Your task to perform on an android device: check out phone information Image 0: 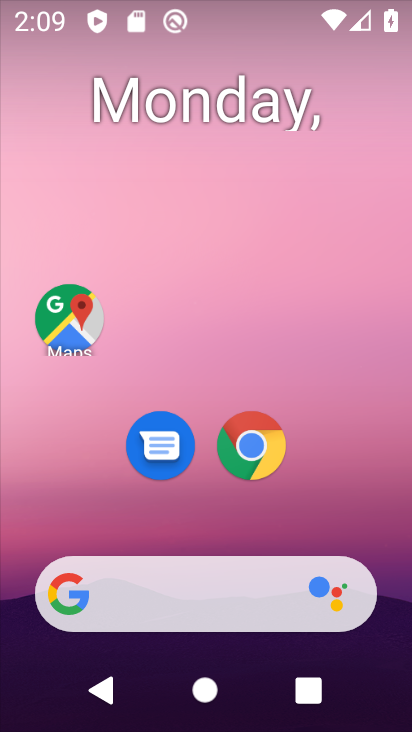
Step 0: drag from (347, 498) to (270, 19)
Your task to perform on an android device: check out phone information Image 1: 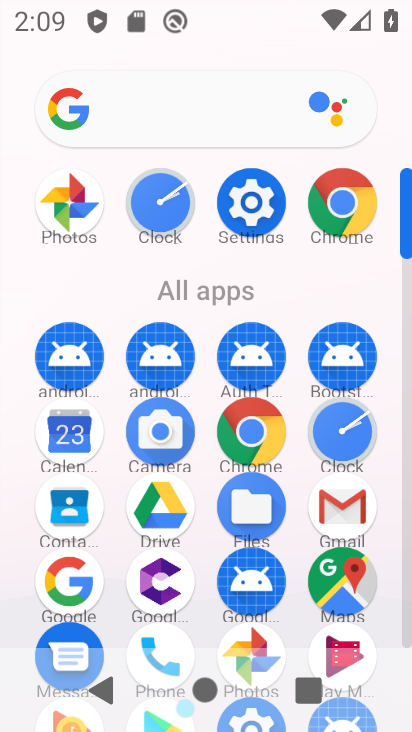
Step 1: drag from (12, 588) to (7, 272)
Your task to perform on an android device: check out phone information Image 2: 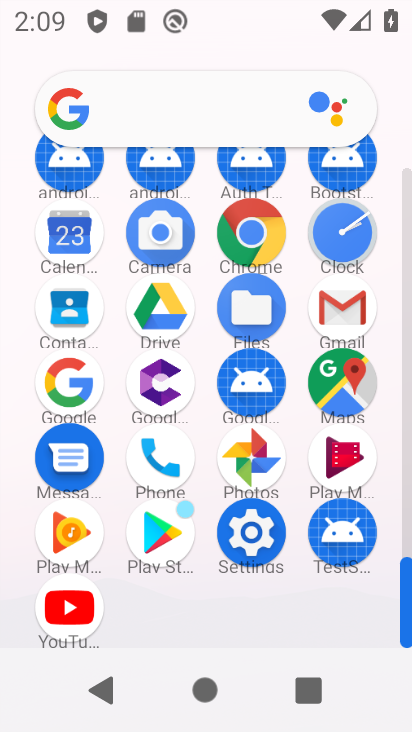
Step 2: click (251, 528)
Your task to perform on an android device: check out phone information Image 3: 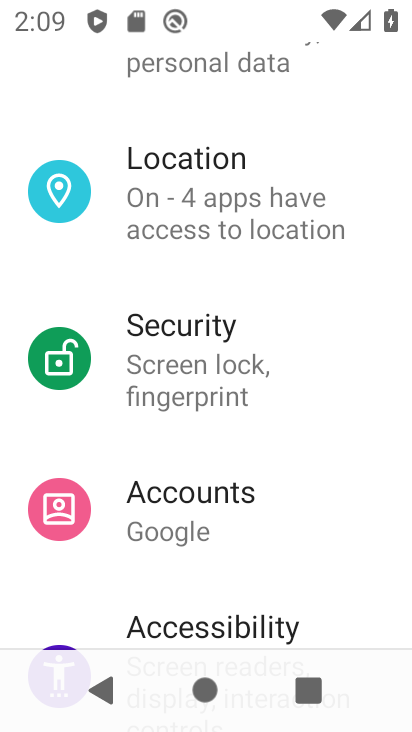
Step 3: drag from (279, 566) to (283, 180)
Your task to perform on an android device: check out phone information Image 4: 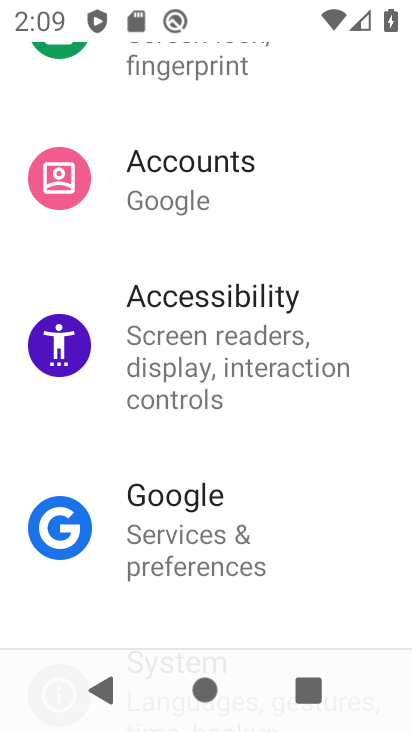
Step 4: drag from (318, 437) to (291, 51)
Your task to perform on an android device: check out phone information Image 5: 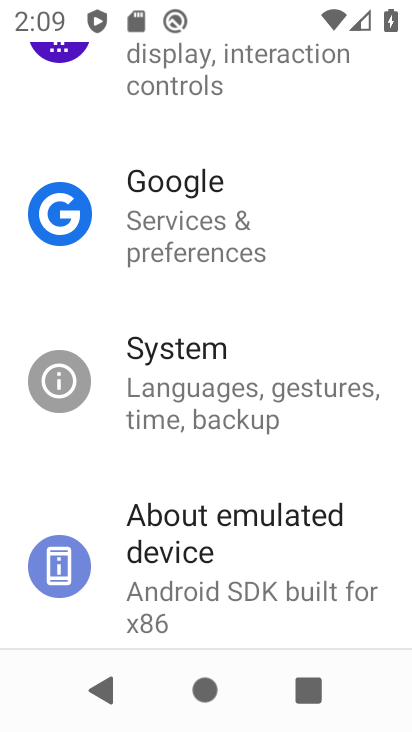
Step 5: drag from (276, 577) to (255, 109)
Your task to perform on an android device: check out phone information Image 6: 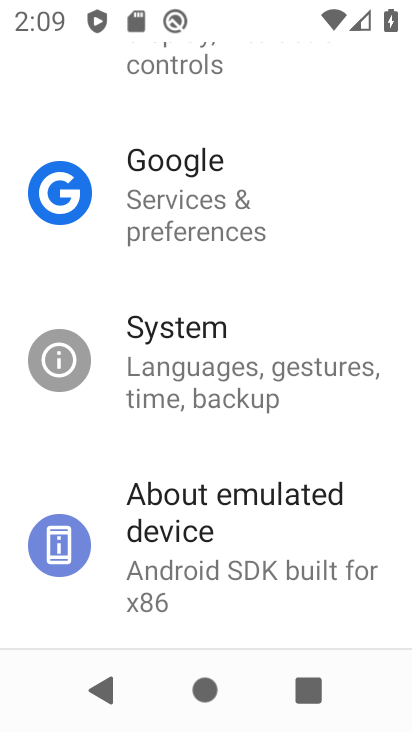
Step 6: click (197, 499)
Your task to perform on an android device: check out phone information Image 7: 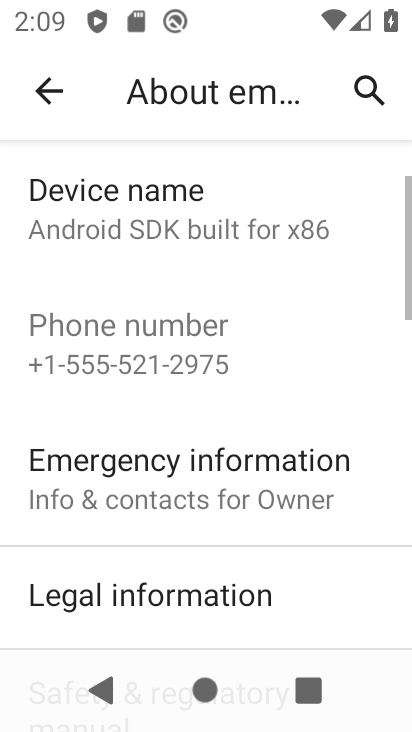
Step 7: task complete